Your task to perform on an android device: add a contact Image 0: 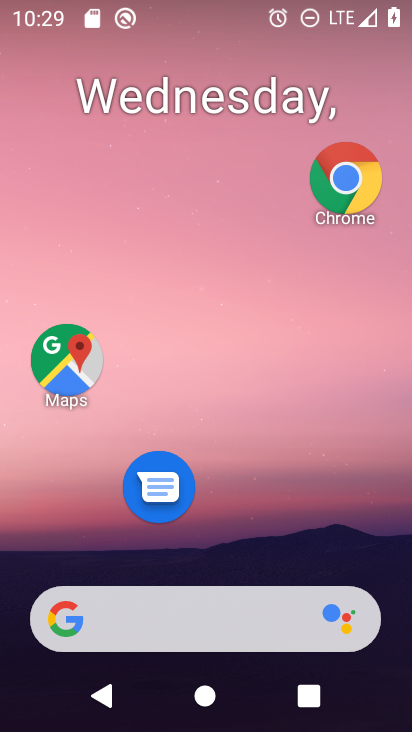
Step 0: drag from (188, 619) to (164, 170)
Your task to perform on an android device: add a contact Image 1: 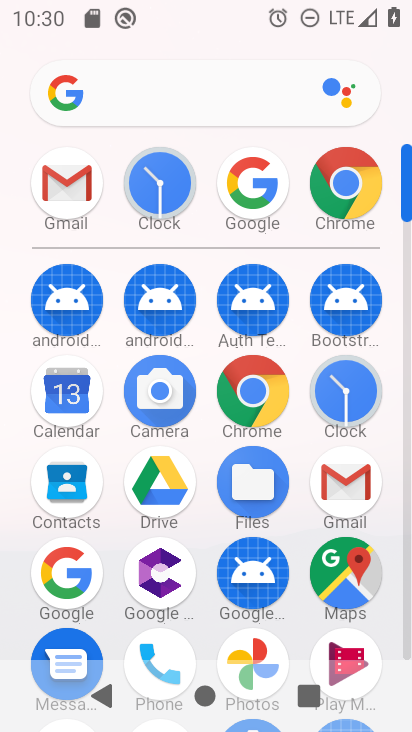
Step 1: click (61, 507)
Your task to perform on an android device: add a contact Image 2: 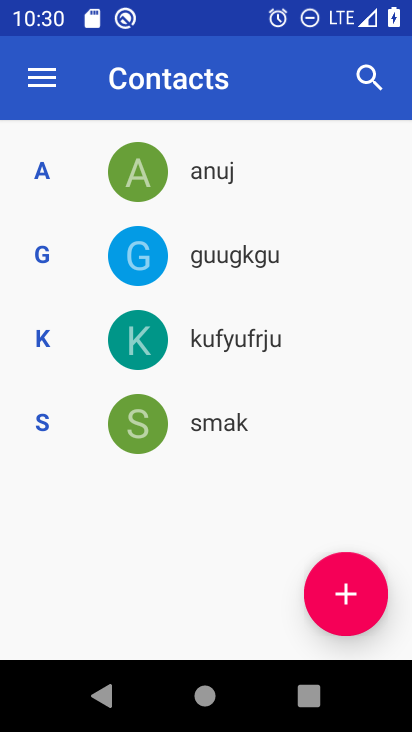
Step 2: click (354, 600)
Your task to perform on an android device: add a contact Image 3: 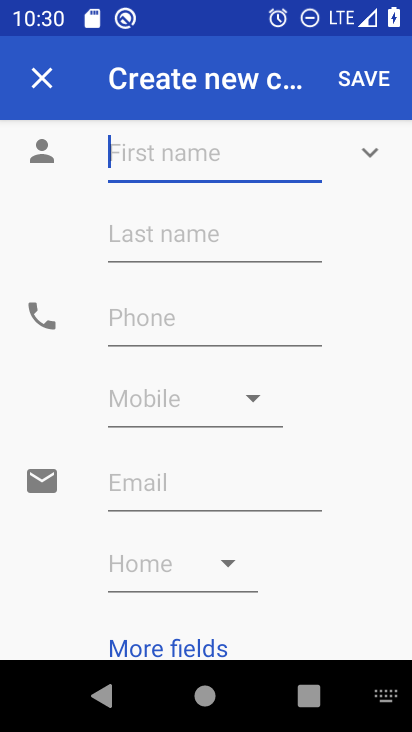
Step 3: type "fhgfd"
Your task to perform on an android device: add a contact Image 4: 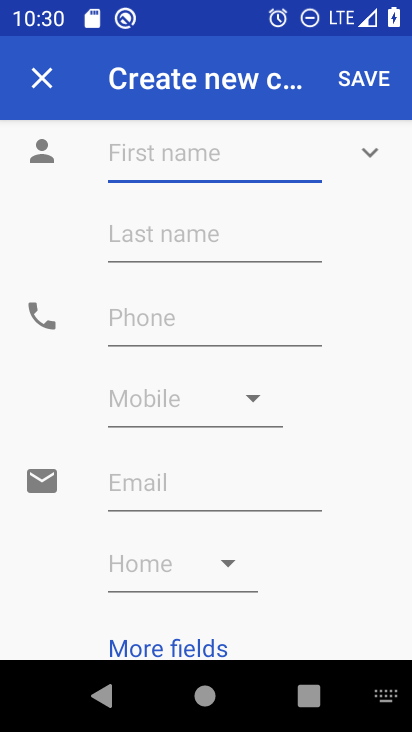
Step 4: click (224, 314)
Your task to perform on an android device: add a contact Image 5: 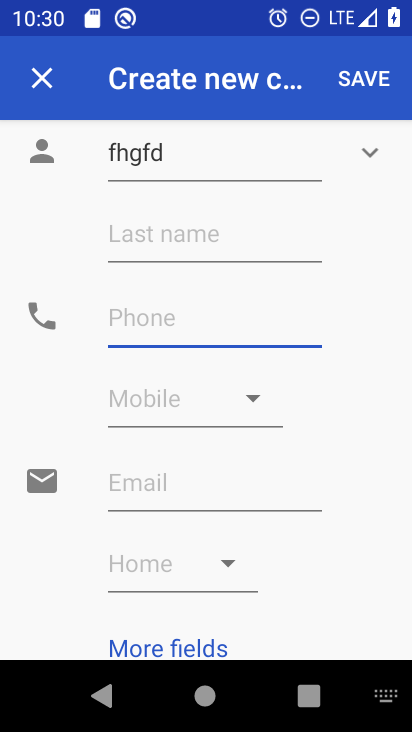
Step 5: type "764533"
Your task to perform on an android device: add a contact Image 6: 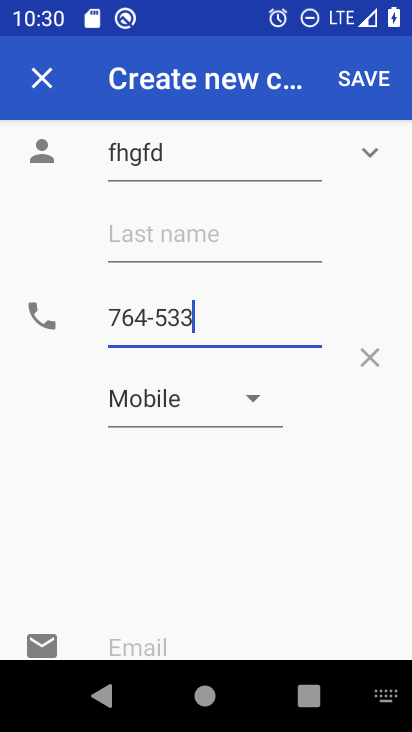
Step 6: type ""
Your task to perform on an android device: add a contact Image 7: 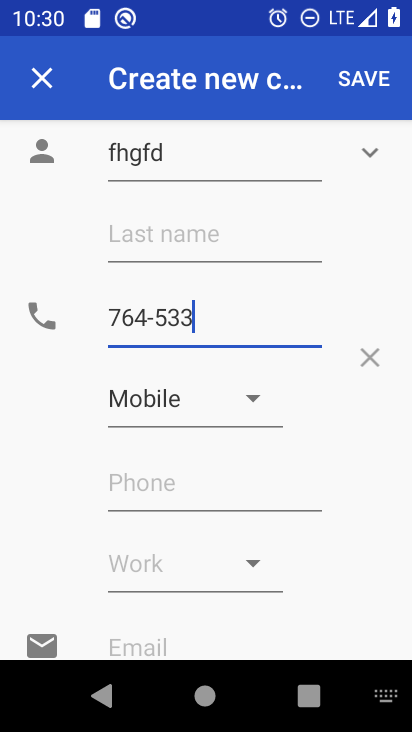
Step 7: click (368, 81)
Your task to perform on an android device: add a contact Image 8: 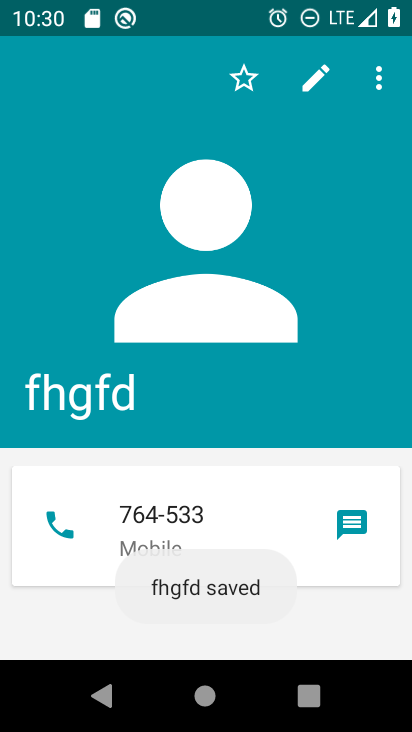
Step 8: task complete